Your task to perform on an android device: What's the weather today? Image 0: 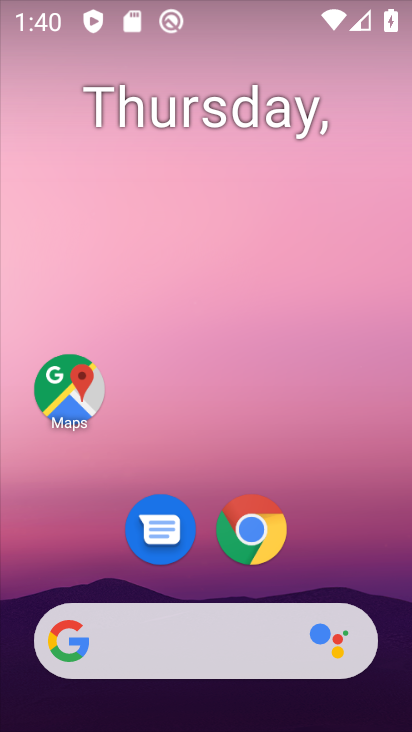
Step 0: drag from (205, 721) to (175, 202)
Your task to perform on an android device: What's the weather today? Image 1: 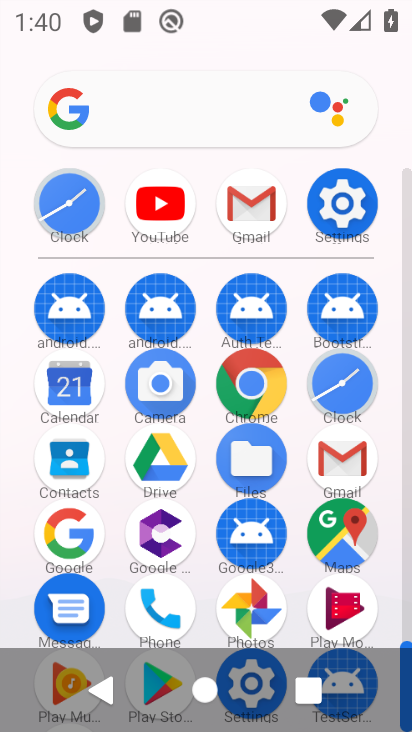
Step 1: drag from (206, 603) to (202, 229)
Your task to perform on an android device: What's the weather today? Image 2: 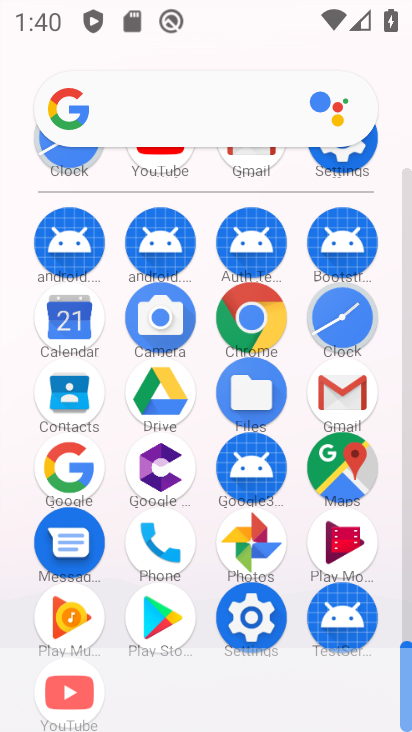
Step 2: click (70, 460)
Your task to perform on an android device: What's the weather today? Image 3: 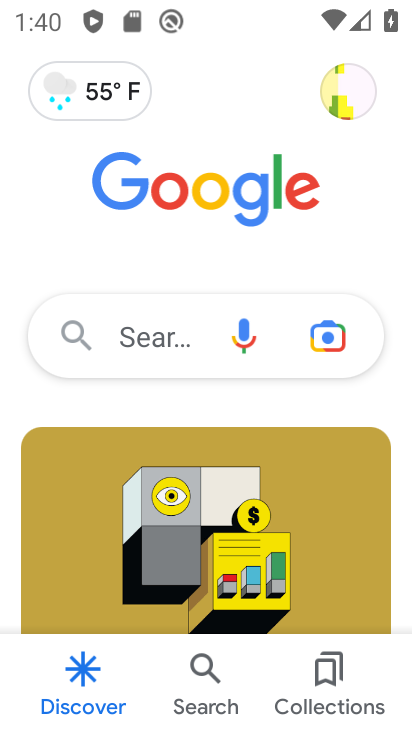
Step 3: click (68, 94)
Your task to perform on an android device: What's the weather today? Image 4: 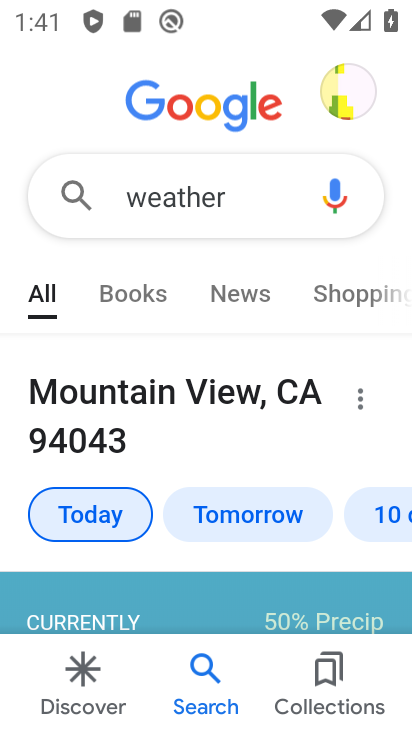
Step 4: task complete